Your task to perform on an android device: Search for the best rated headphones on Amazon Image 0: 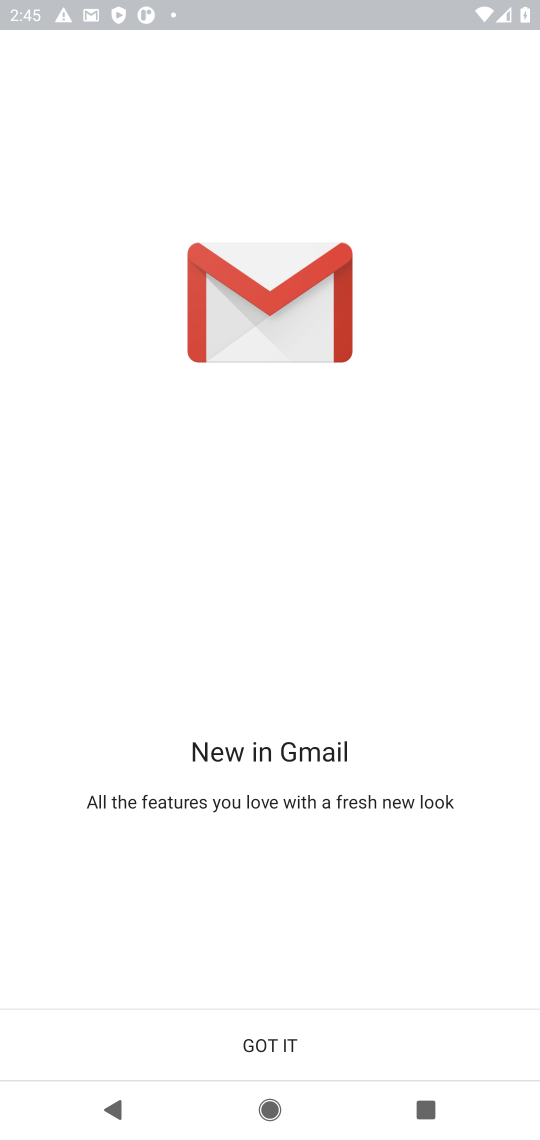
Step 0: press home button
Your task to perform on an android device: Search for the best rated headphones on Amazon Image 1: 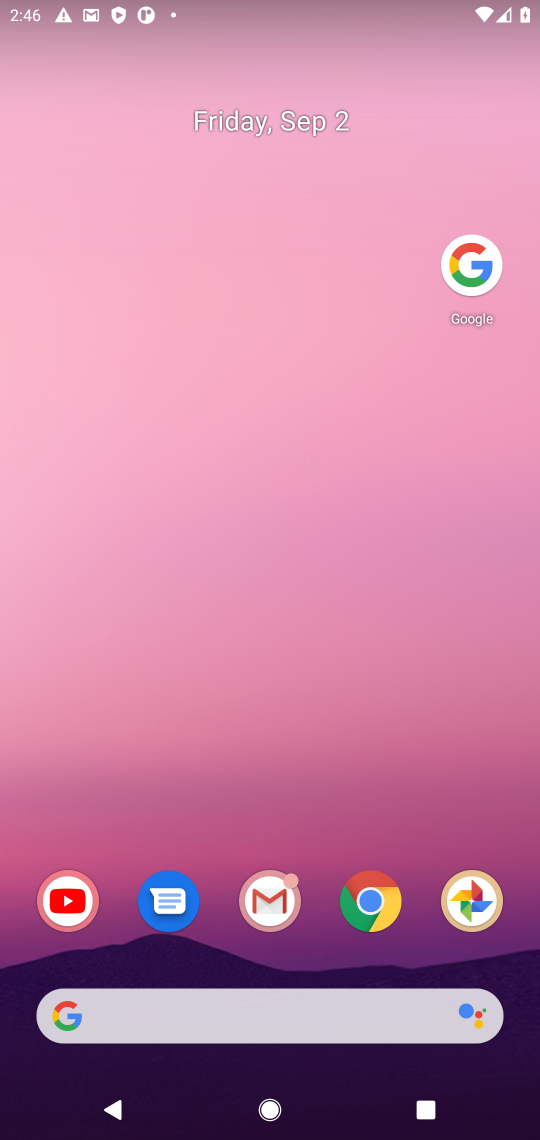
Step 1: click (481, 251)
Your task to perform on an android device: Search for the best rated headphones on Amazon Image 2: 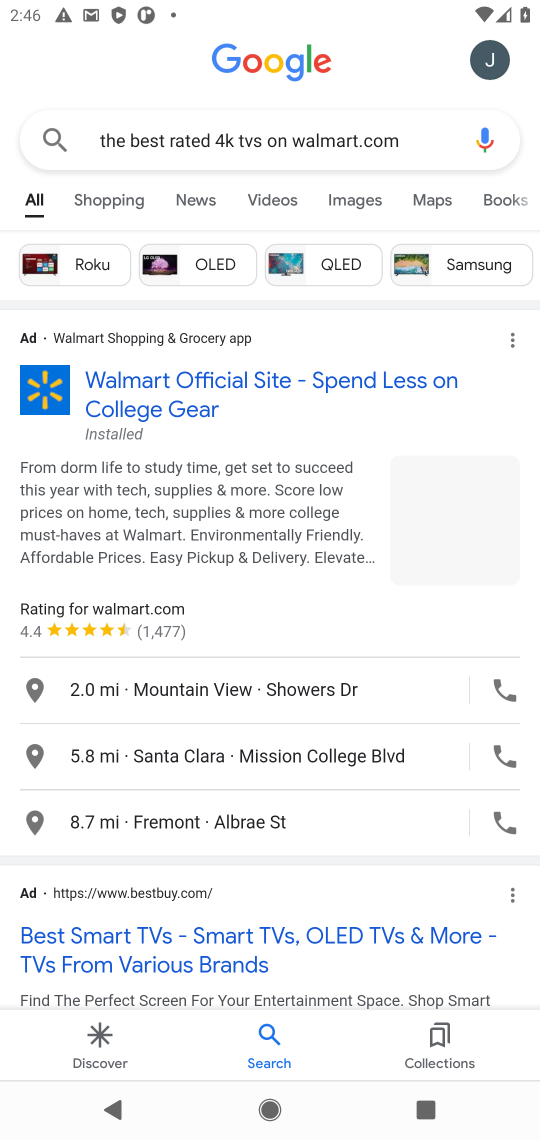
Step 2: click (405, 146)
Your task to perform on an android device: Search for the best rated headphones on Amazon Image 3: 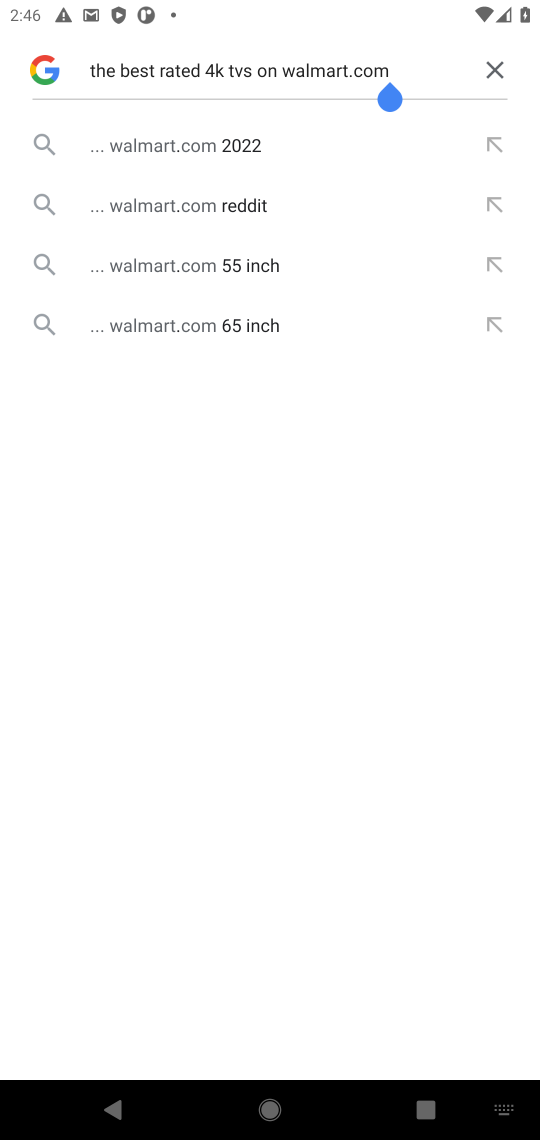
Step 3: click (491, 74)
Your task to perform on an android device: Search for the best rated headphones on Amazon Image 4: 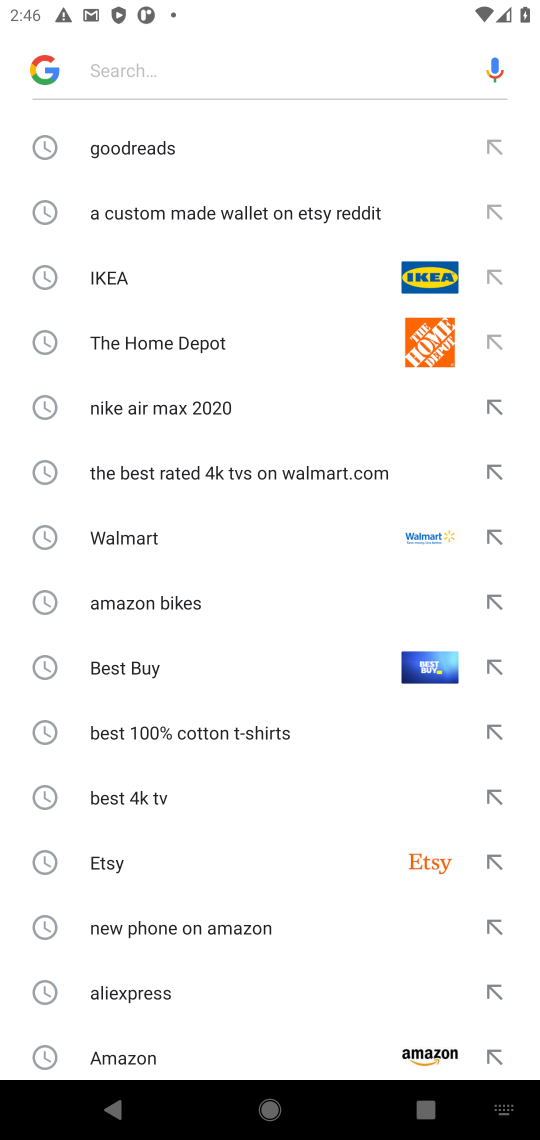
Step 4: click (246, 55)
Your task to perform on an android device: Search for the best rated headphones on Amazon Image 5: 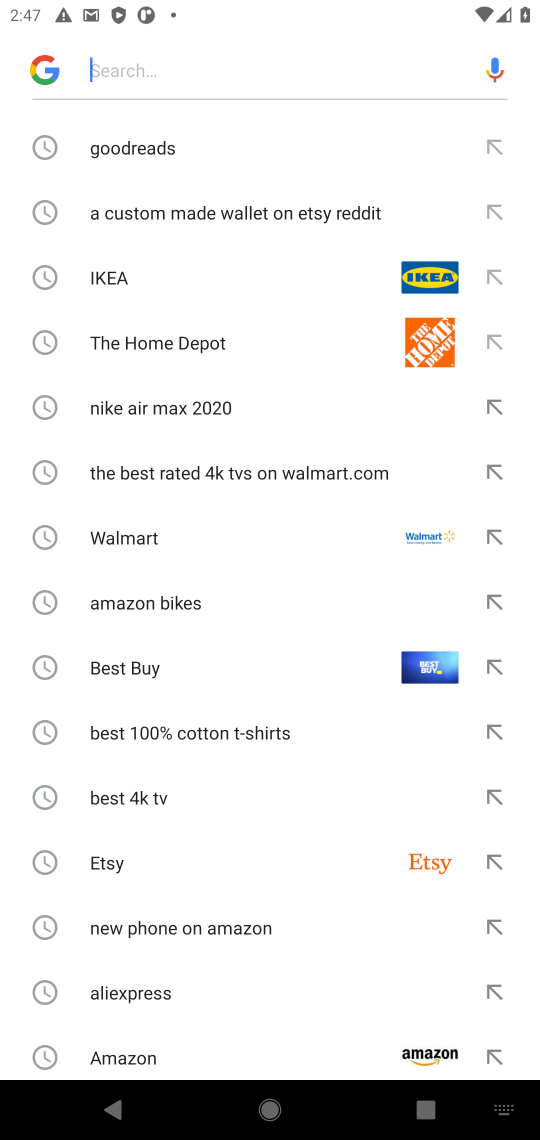
Step 5: type " the best rated headphones on Amazon "
Your task to perform on an android device: Search for the best rated headphones on Amazon Image 6: 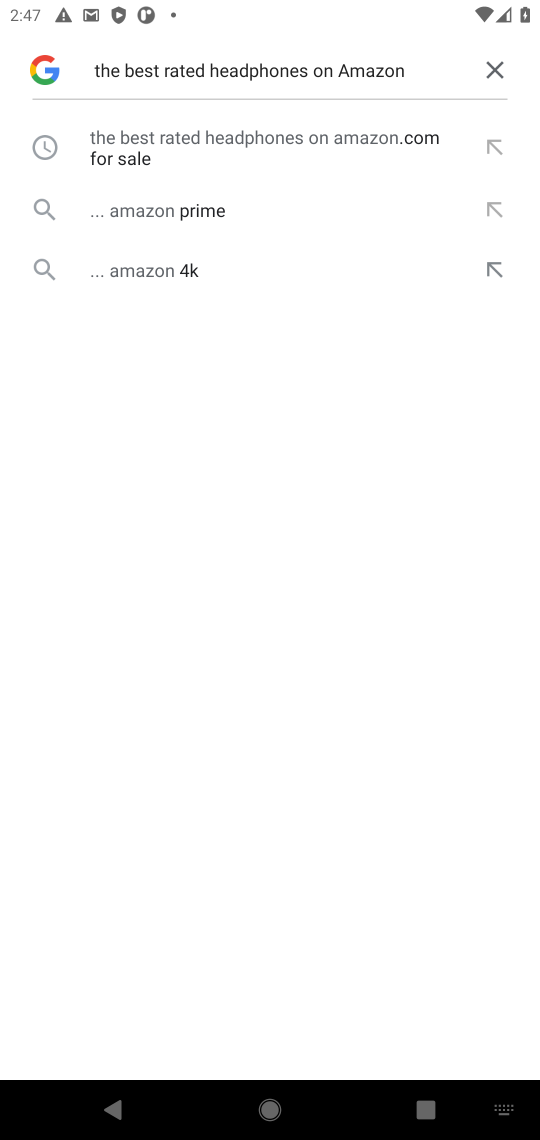
Step 6: click (210, 152)
Your task to perform on an android device: Search for the best rated headphones on Amazon Image 7: 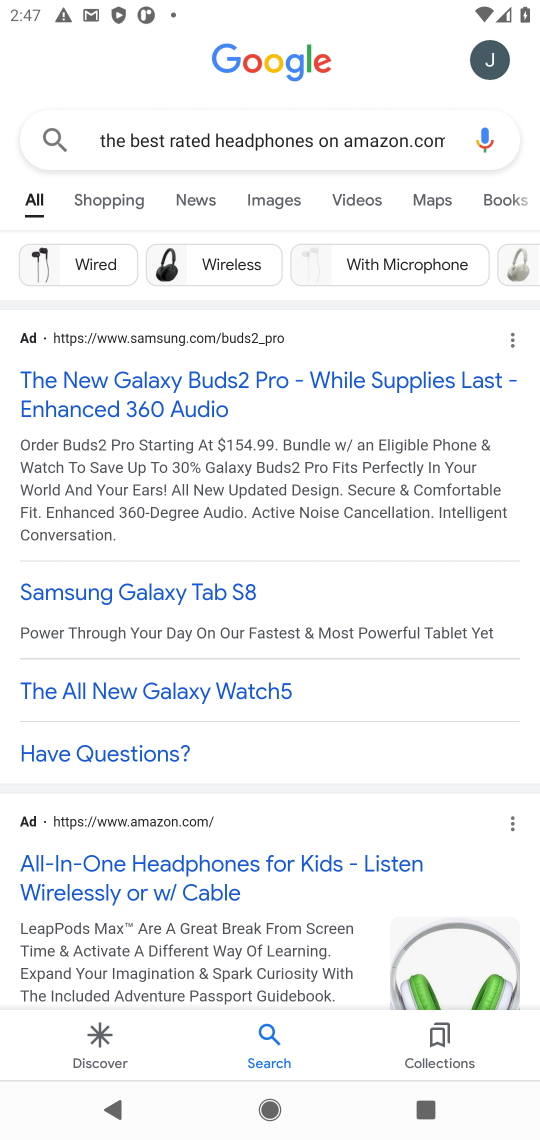
Step 7: drag from (236, 781) to (296, 284)
Your task to perform on an android device: Search for the best rated headphones on Amazon Image 8: 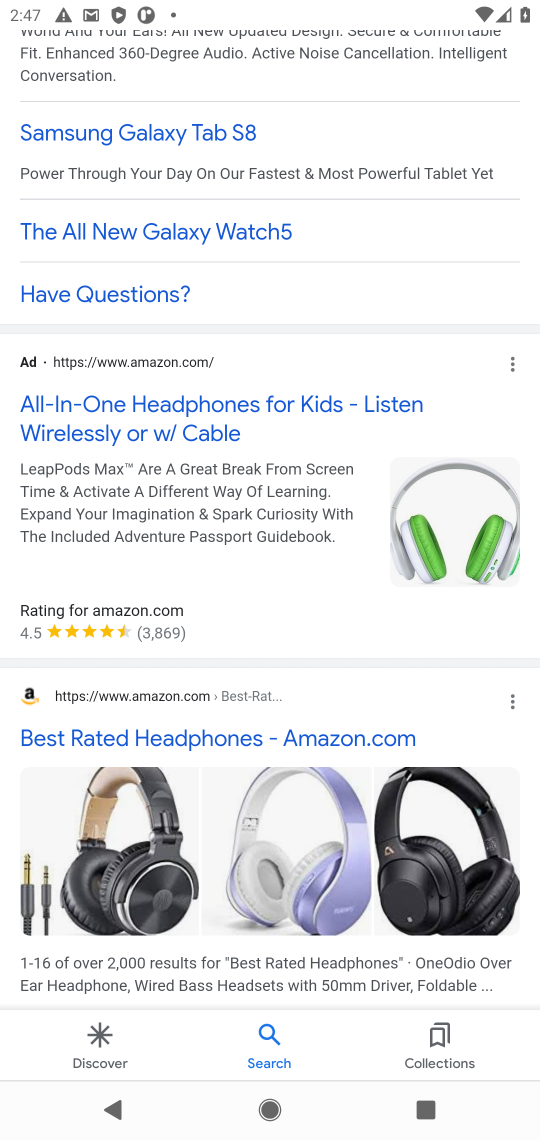
Step 8: click (129, 740)
Your task to perform on an android device: Search for the best rated headphones on Amazon Image 9: 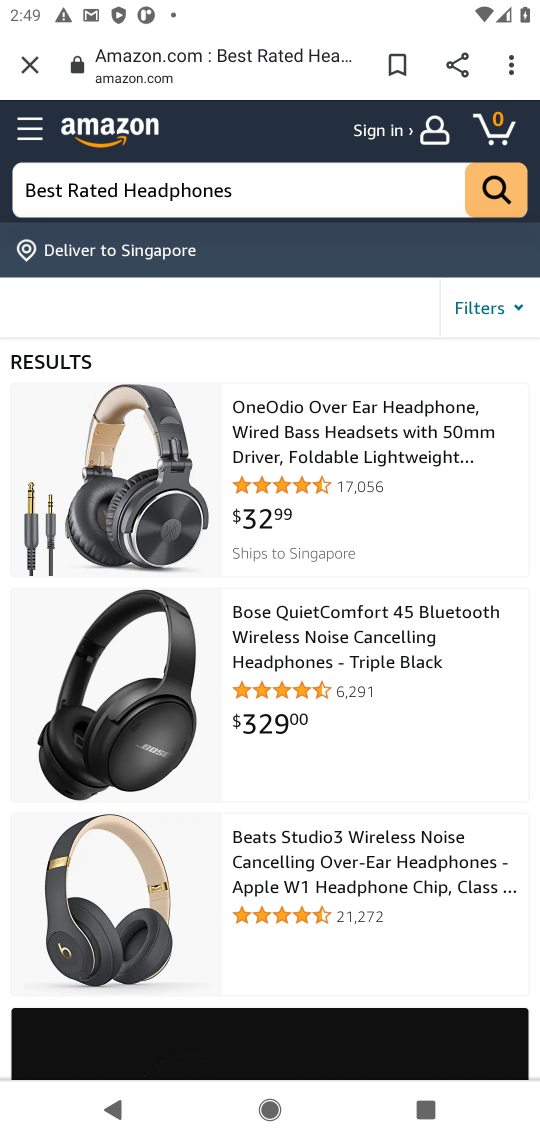
Step 9: task complete